Your task to perform on an android device: see tabs open on other devices in the chrome app Image 0: 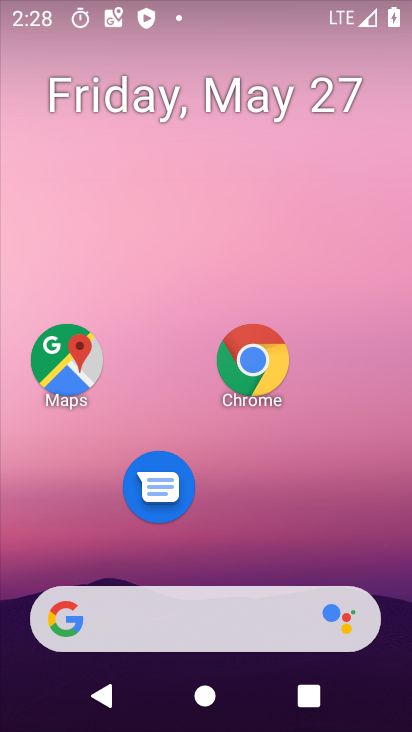
Step 0: click (251, 349)
Your task to perform on an android device: see tabs open on other devices in the chrome app Image 1: 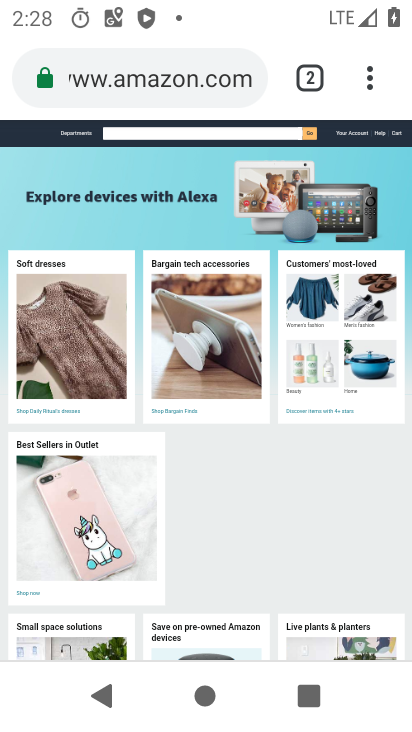
Step 1: click (311, 70)
Your task to perform on an android device: see tabs open on other devices in the chrome app Image 2: 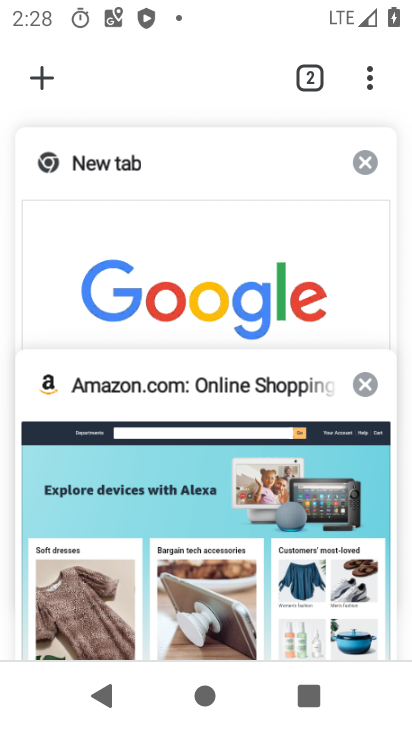
Step 2: click (47, 72)
Your task to perform on an android device: see tabs open on other devices in the chrome app Image 3: 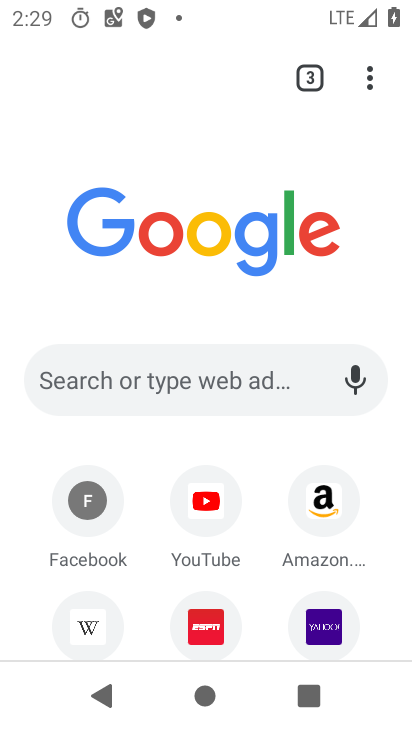
Step 3: task complete